Your task to perform on an android device: How much does a 2 bedroom apartment rent for in Boston? Image 0: 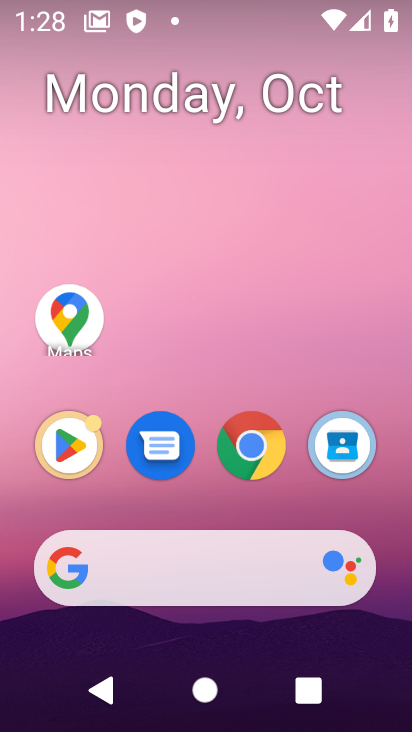
Step 0: click (209, 557)
Your task to perform on an android device: How much does a 2 bedroom apartment rent for in Boston? Image 1: 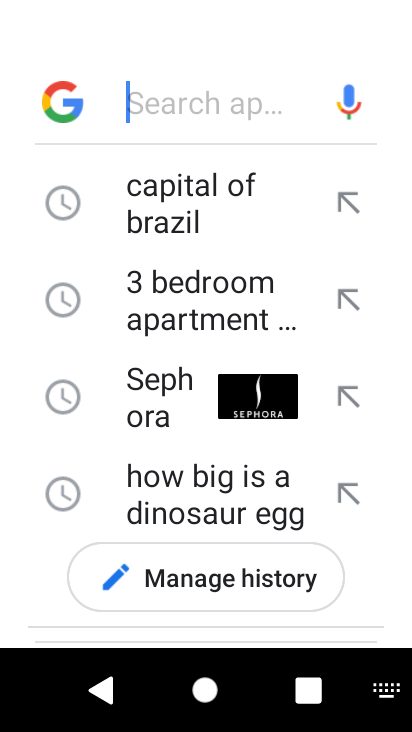
Step 1: type "2 bedroom apartment rent for in Boston"
Your task to perform on an android device: How much does a 2 bedroom apartment rent for in Boston? Image 2: 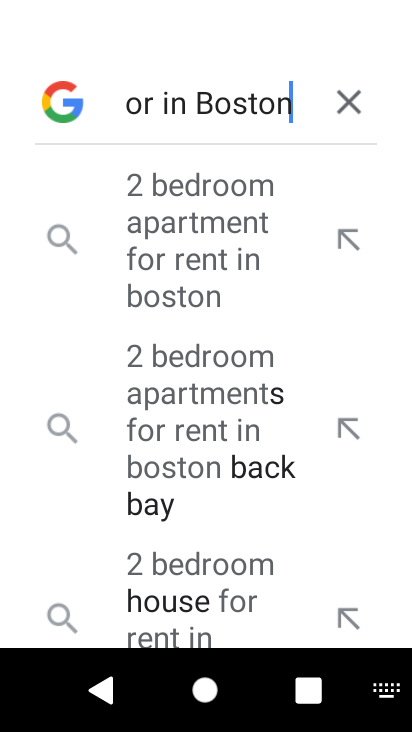
Step 2: type ""
Your task to perform on an android device: How much does a 2 bedroom apartment rent for in Boston? Image 3: 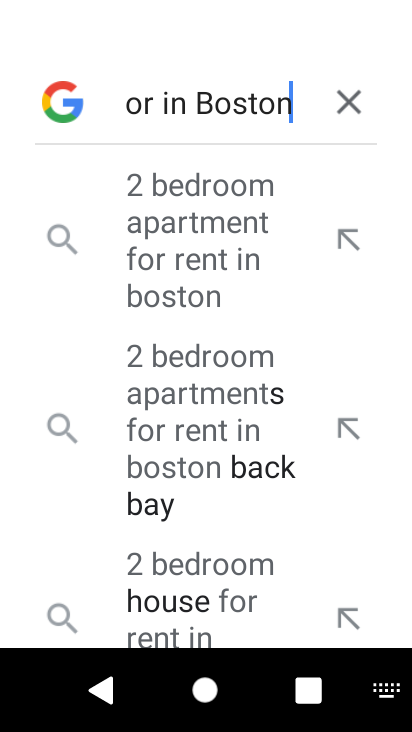
Step 3: click (245, 210)
Your task to perform on an android device: How much does a 2 bedroom apartment rent for in Boston? Image 4: 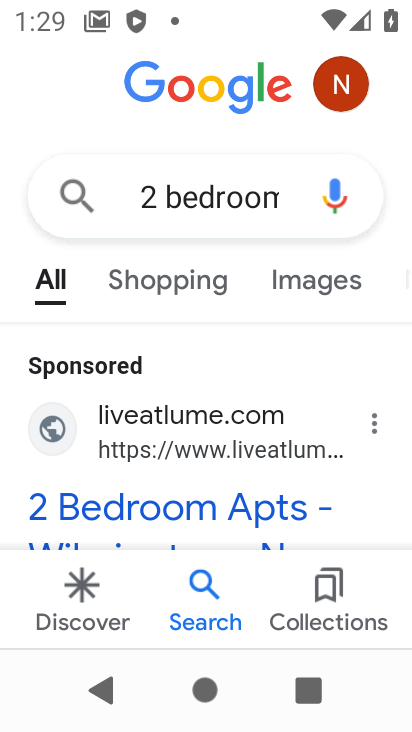
Step 4: drag from (220, 392) to (250, 117)
Your task to perform on an android device: How much does a 2 bedroom apartment rent for in Boston? Image 5: 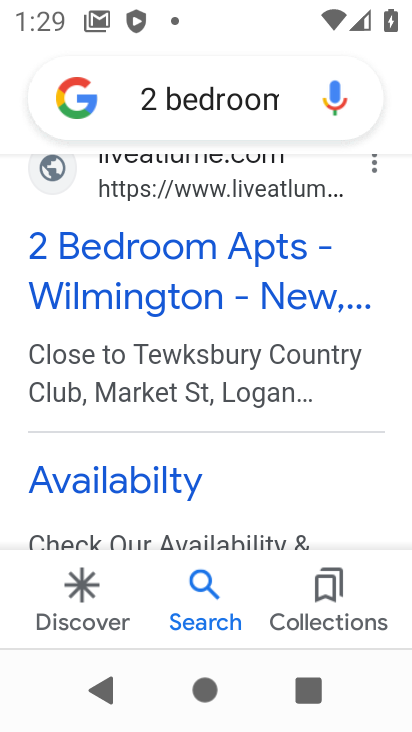
Step 5: click (270, 269)
Your task to perform on an android device: How much does a 2 bedroom apartment rent for in Boston? Image 6: 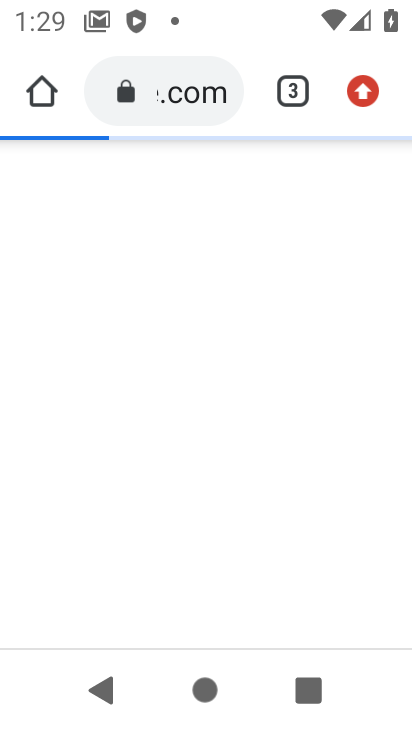
Step 6: task complete